Your task to perform on an android device: find photos in the google photos app Image 0: 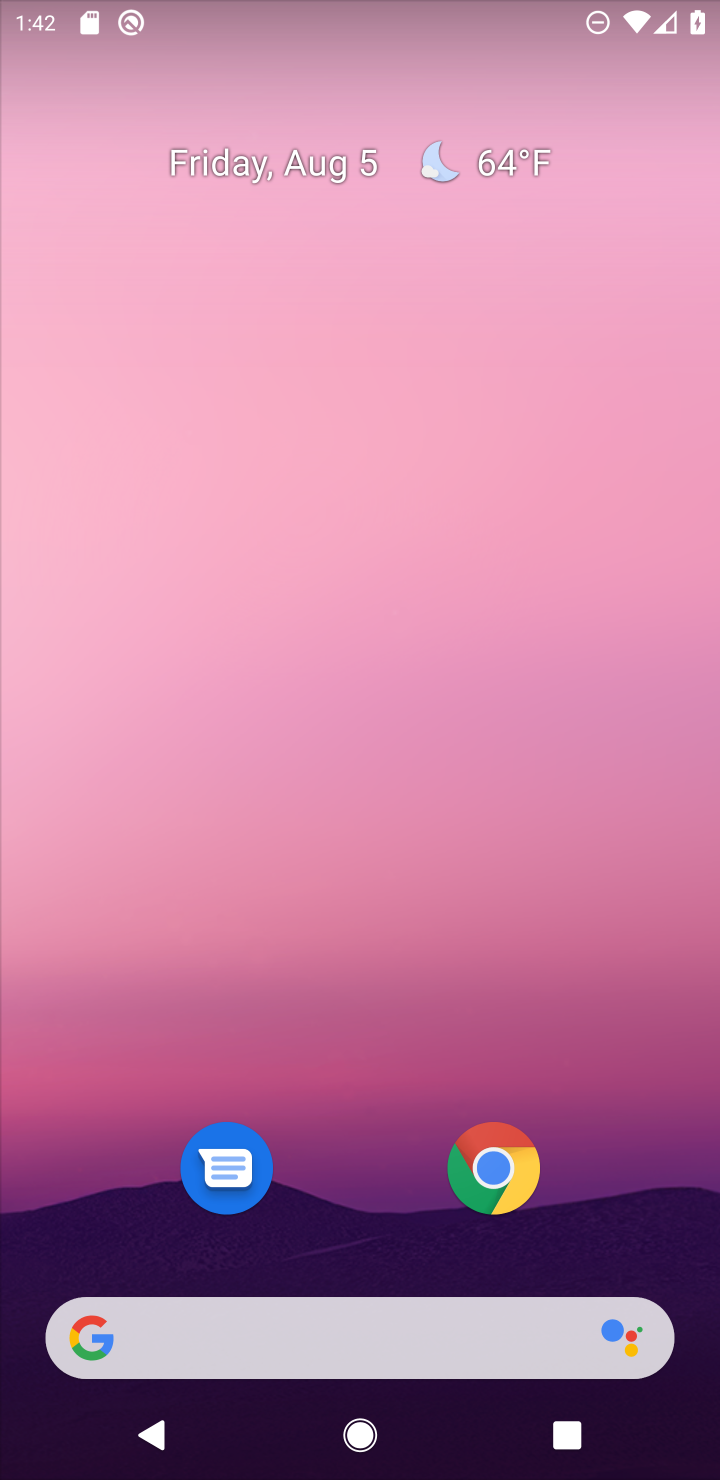
Step 0: drag from (657, 1235) to (426, 1)
Your task to perform on an android device: find photos in the google photos app Image 1: 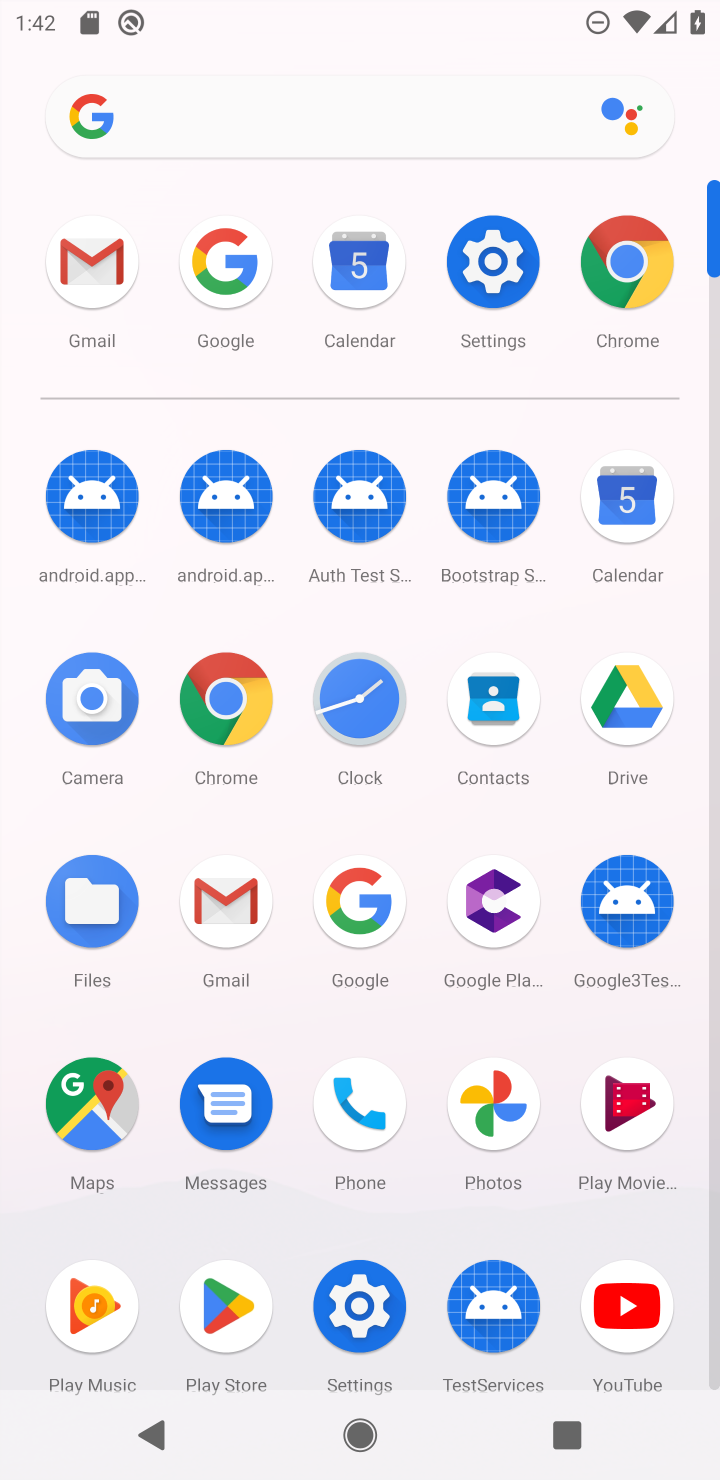
Step 1: click (476, 1125)
Your task to perform on an android device: find photos in the google photos app Image 2: 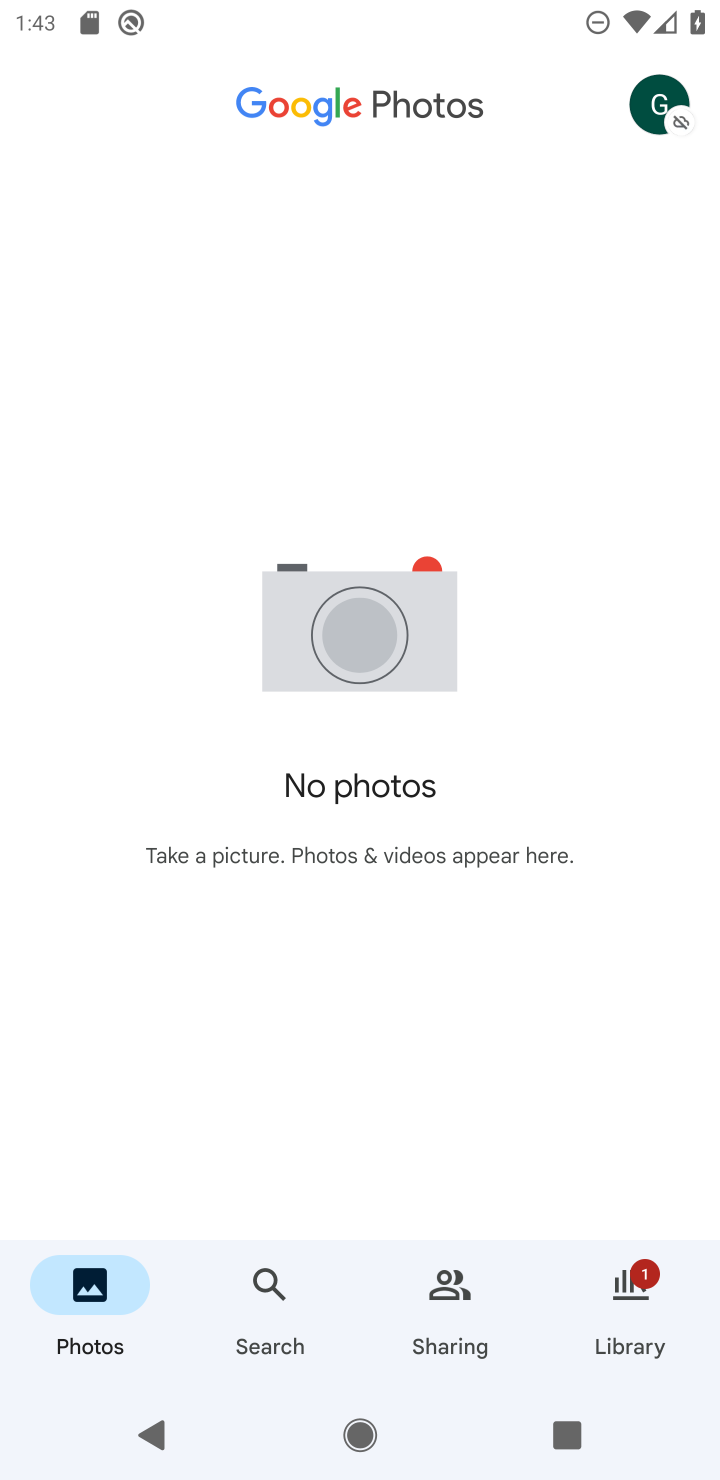
Step 2: task complete